Your task to perform on an android device: open wifi settings Image 0: 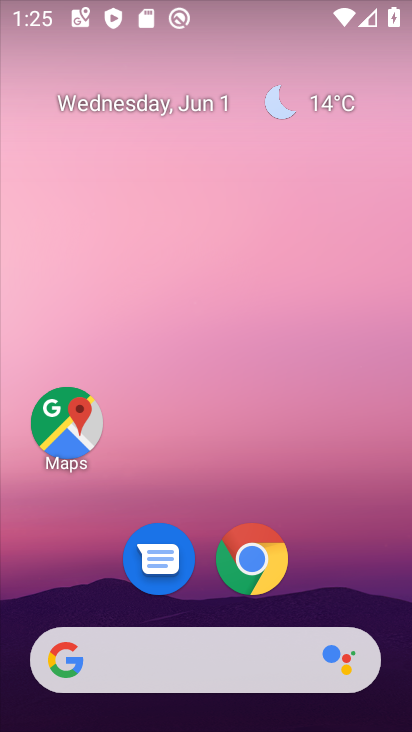
Step 0: drag from (385, 710) to (299, 183)
Your task to perform on an android device: open wifi settings Image 1: 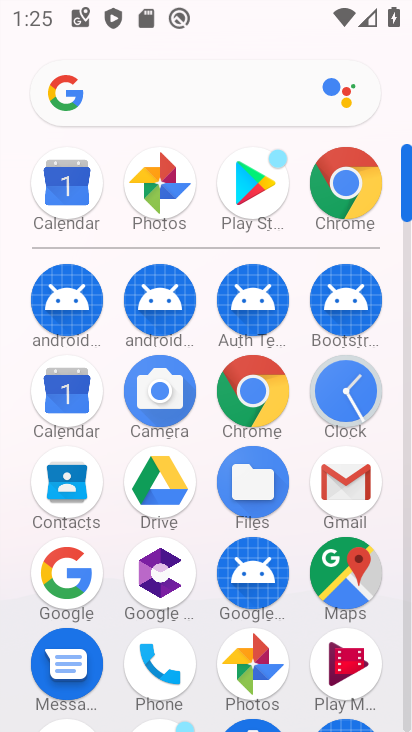
Step 1: drag from (199, 699) to (188, 219)
Your task to perform on an android device: open wifi settings Image 2: 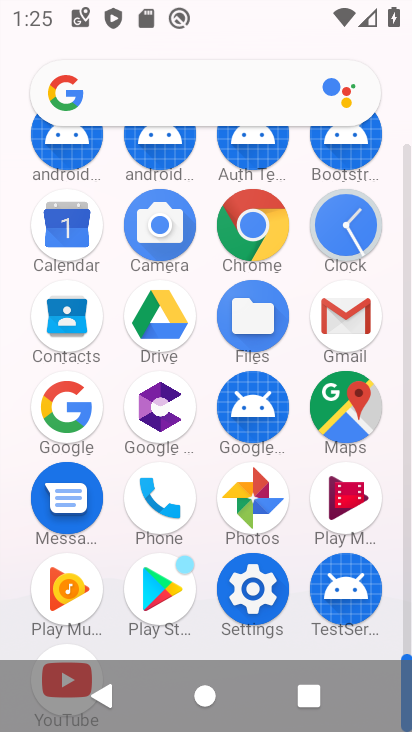
Step 2: click (232, 592)
Your task to perform on an android device: open wifi settings Image 3: 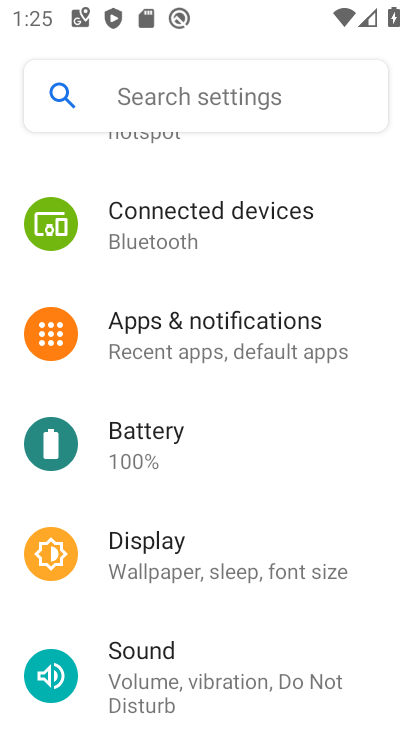
Step 3: drag from (297, 164) to (378, 646)
Your task to perform on an android device: open wifi settings Image 4: 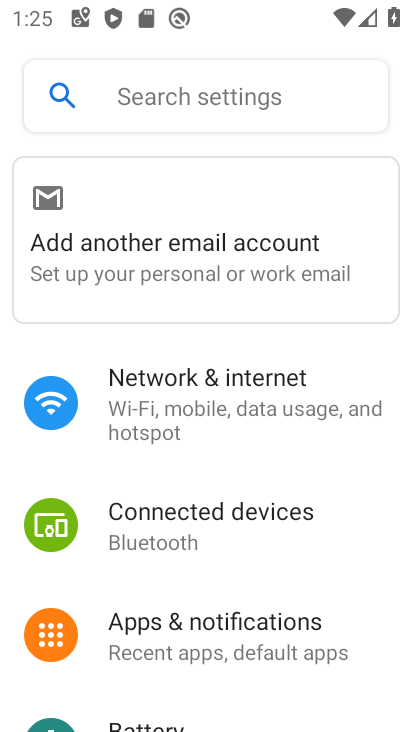
Step 4: click (175, 402)
Your task to perform on an android device: open wifi settings Image 5: 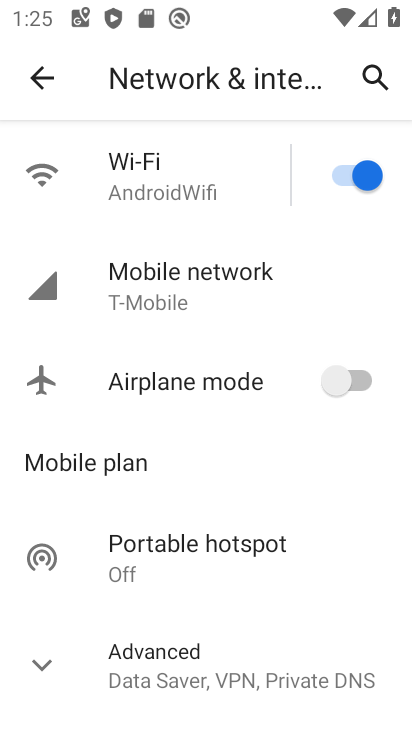
Step 5: click (203, 188)
Your task to perform on an android device: open wifi settings Image 6: 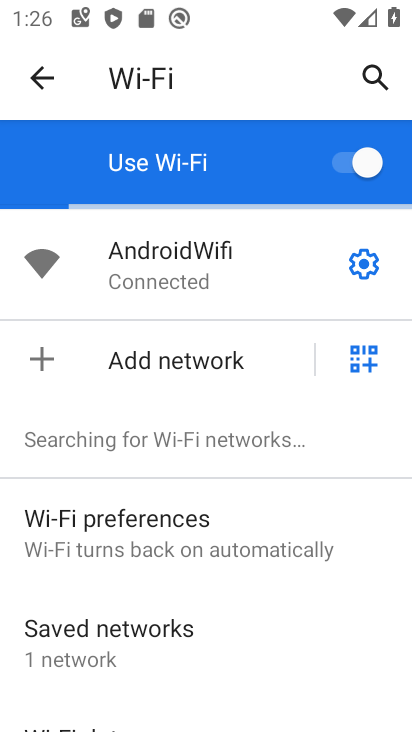
Step 6: click (363, 262)
Your task to perform on an android device: open wifi settings Image 7: 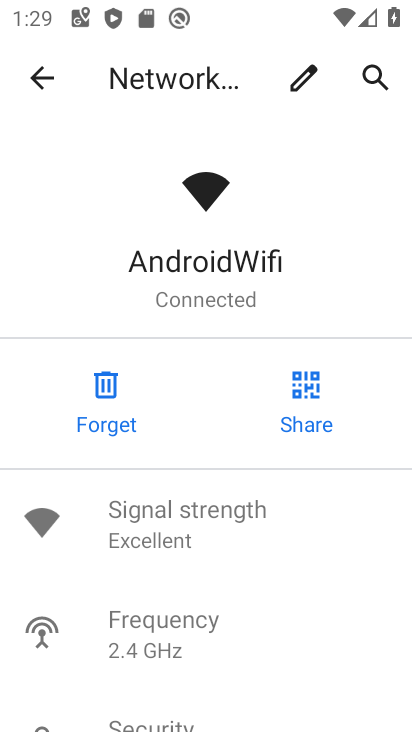
Step 7: task complete